Your task to perform on an android device: Open settings Image 0: 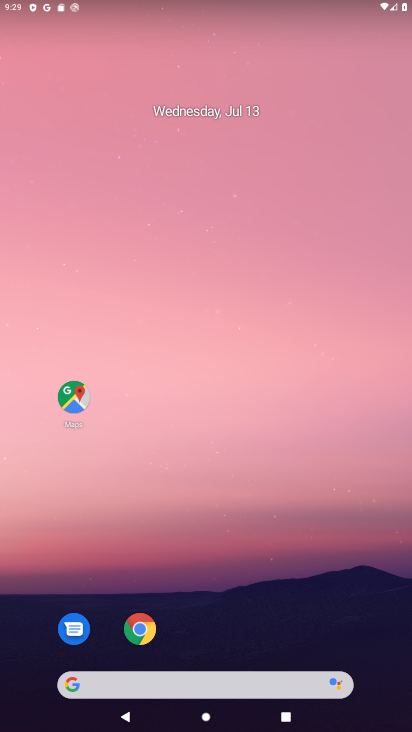
Step 0: drag from (279, 649) to (284, 111)
Your task to perform on an android device: Open settings Image 1: 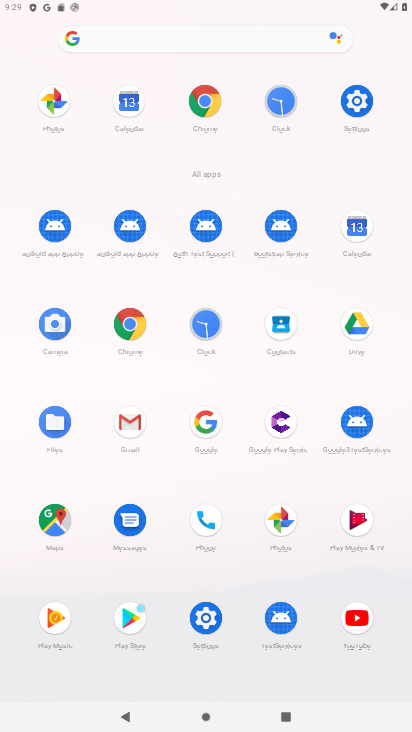
Step 1: click (339, 112)
Your task to perform on an android device: Open settings Image 2: 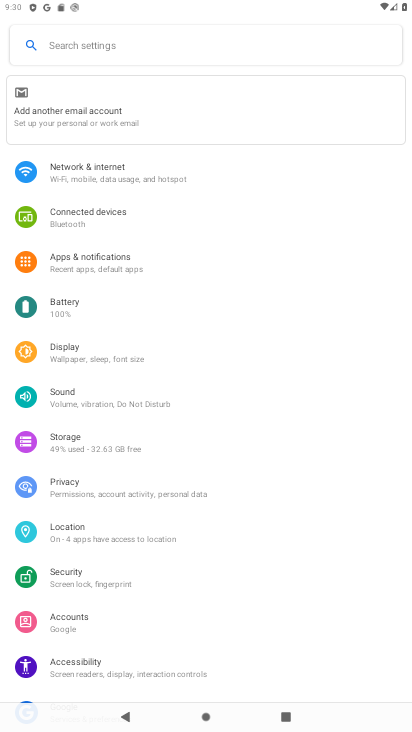
Step 2: task complete